Your task to perform on an android device: Open internet settings Image 0: 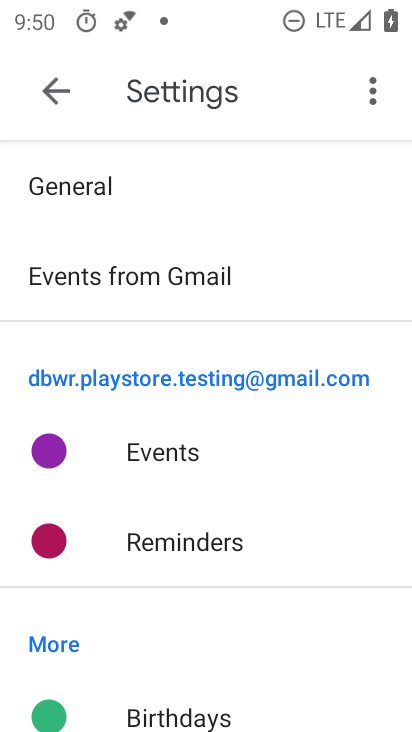
Step 0: press home button
Your task to perform on an android device: Open internet settings Image 1: 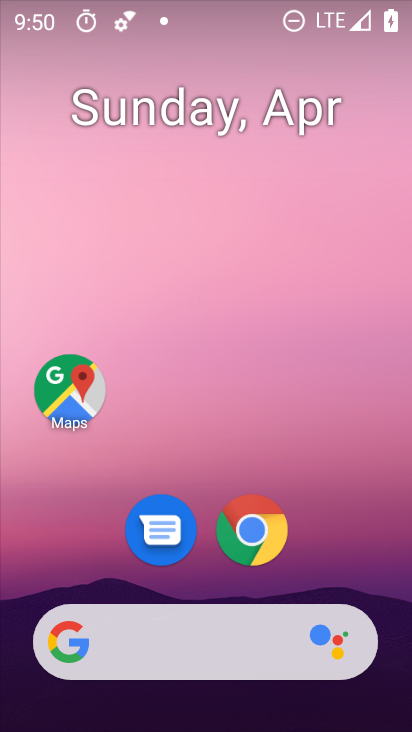
Step 1: drag from (385, 583) to (347, 30)
Your task to perform on an android device: Open internet settings Image 2: 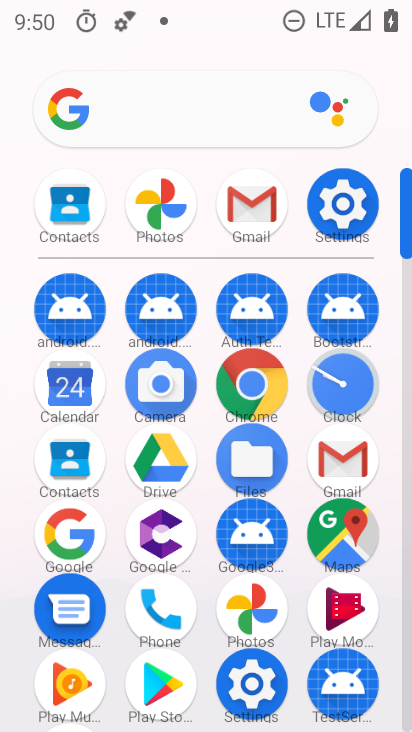
Step 2: click (345, 203)
Your task to perform on an android device: Open internet settings Image 3: 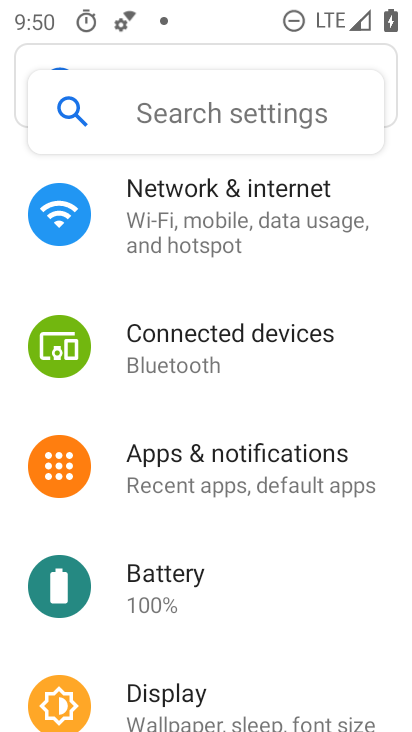
Step 3: click (171, 233)
Your task to perform on an android device: Open internet settings Image 4: 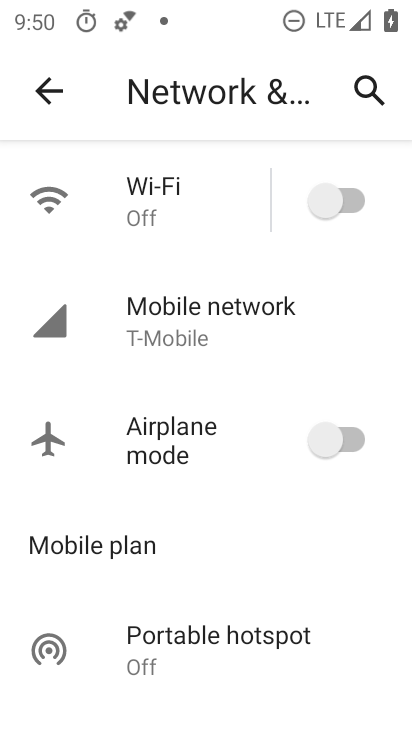
Step 4: drag from (220, 569) to (192, 232)
Your task to perform on an android device: Open internet settings Image 5: 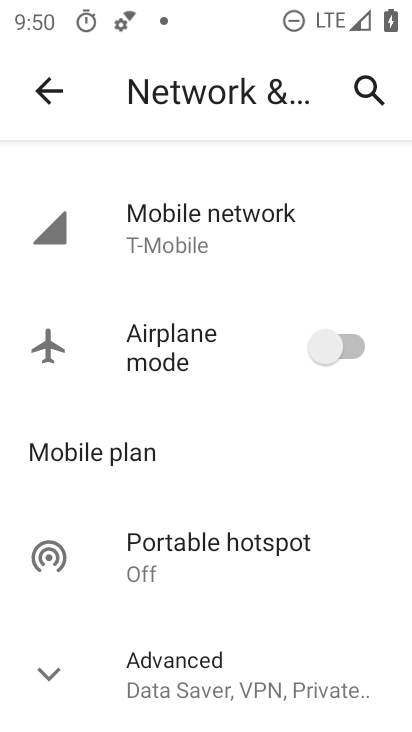
Step 5: click (49, 696)
Your task to perform on an android device: Open internet settings Image 6: 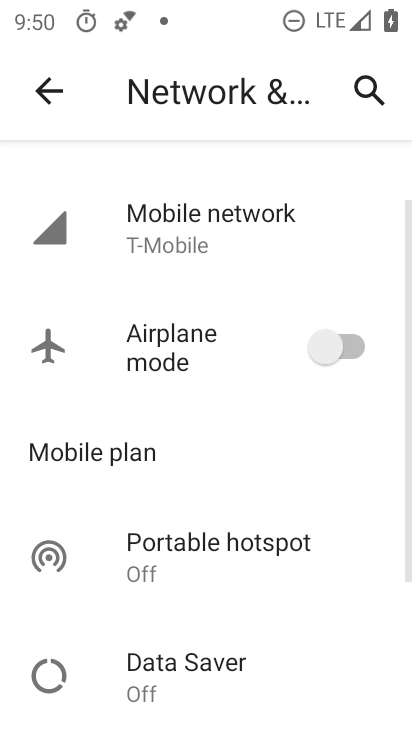
Step 6: task complete